Your task to perform on an android device: Go to display settings Image 0: 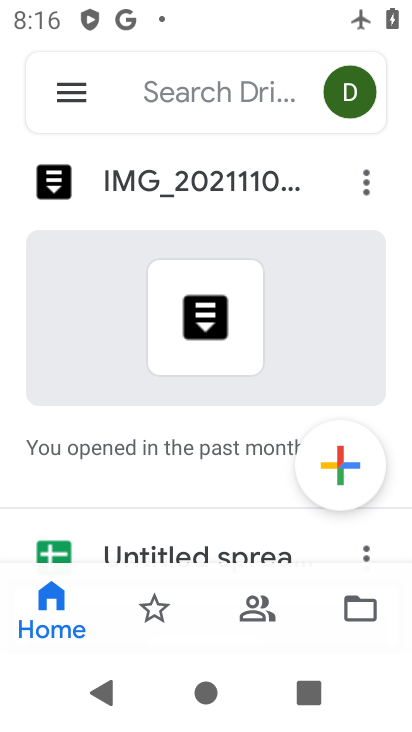
Step 0: press home button
Your task to perform on an android device: Go to display settings Image 1: 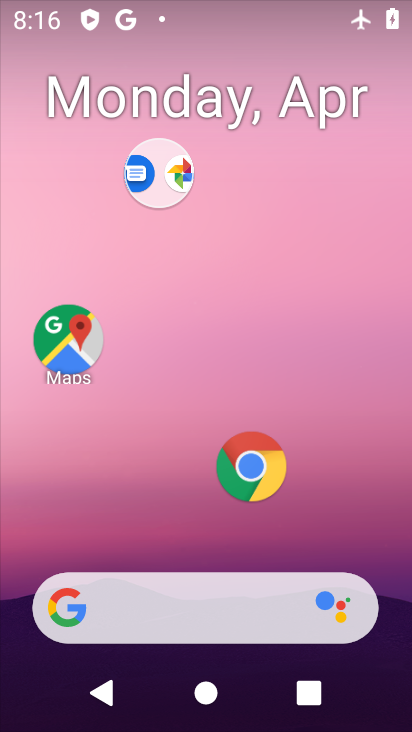
Step 1: drag from (190, 541) to (243, 267)
Your task to perform on an android device: Go to display settings Image 2: 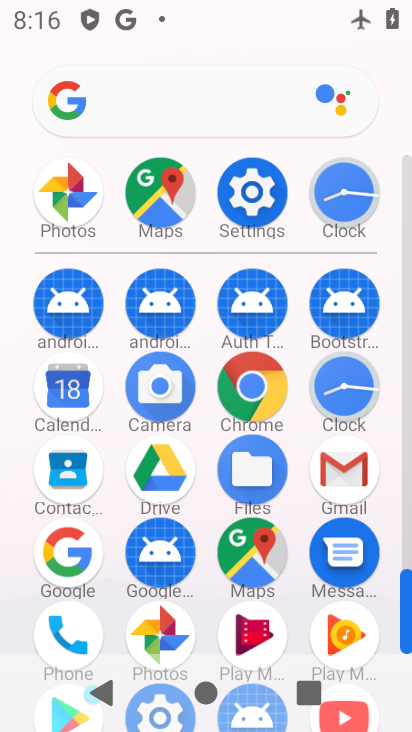
Step 2: drag from (213, 573) to (257, 275)
Your task to perform on an android device: Go to display settings Image 3: 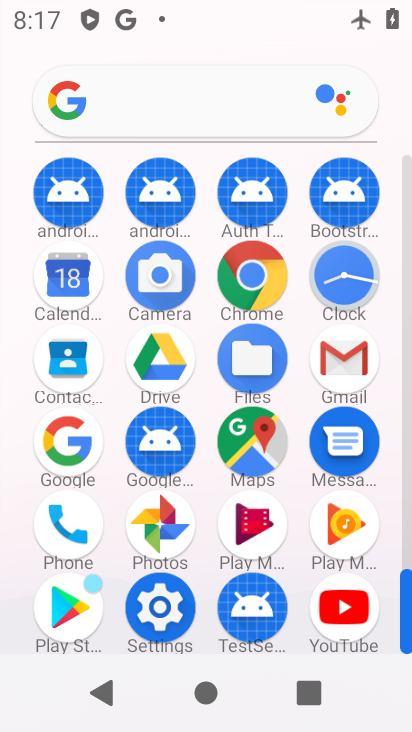
Step 3: click (158, 616)
Your task to perform on an android device: Go to display settings Image 4: 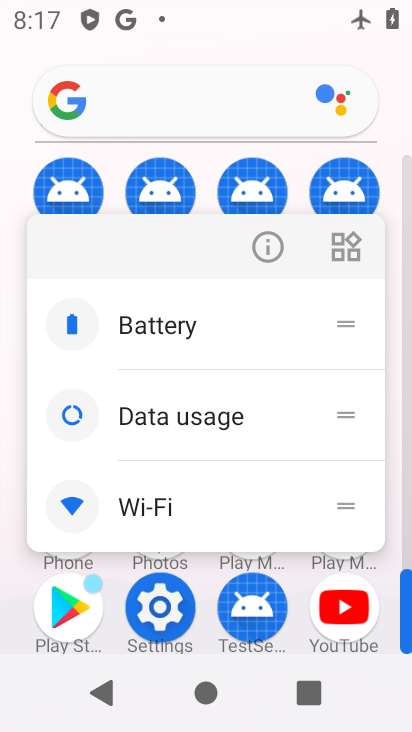
Step 4: click (268, 260)
Your task to perform on an android device: Go to display settings Image 5: 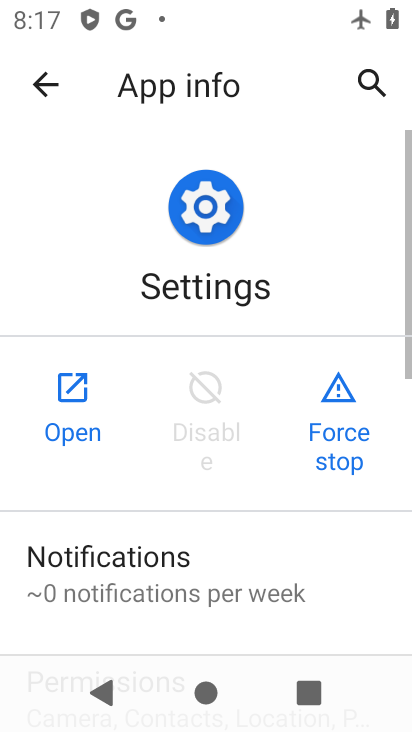
Step 5: click (72, 400)
Your task to perform on an android device: Go to display settings Image 6: 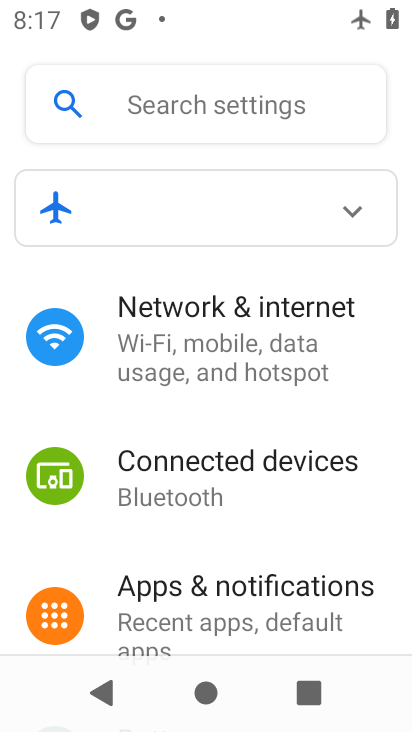
Step 6: drag from (205, 571) to (289, 162)
Your task to perform on an android device: Go to display settings Image 7: 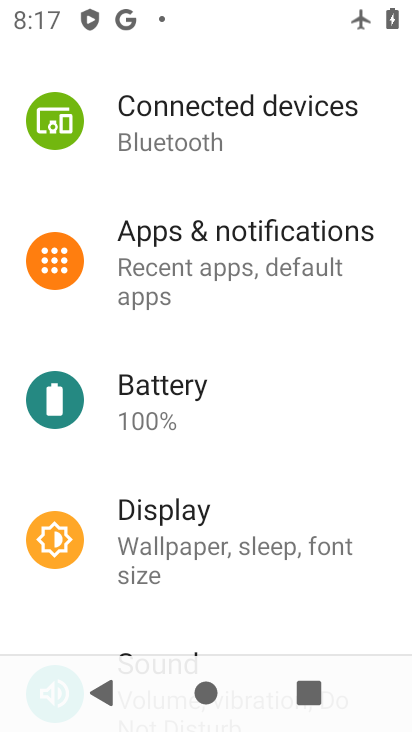
Step 7: click (189, 529)
Your task to perform on an android device: Go to display settings Image 8: 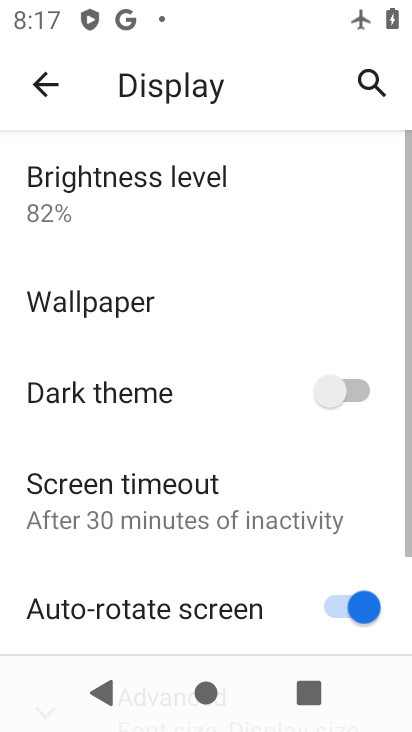
Step 8: drag from (200, 510) to (205, 229)
Your task to perform on an android device: Go to display settings Image 9: 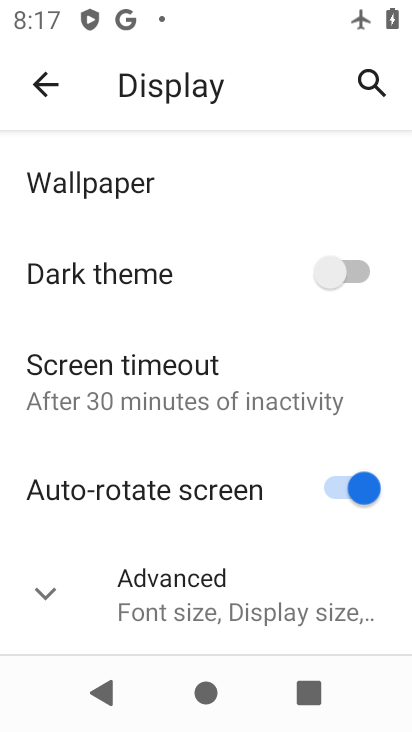
Step 9: click (205, 586)
Your task to perform on an android device: Go to display settings Image 10: 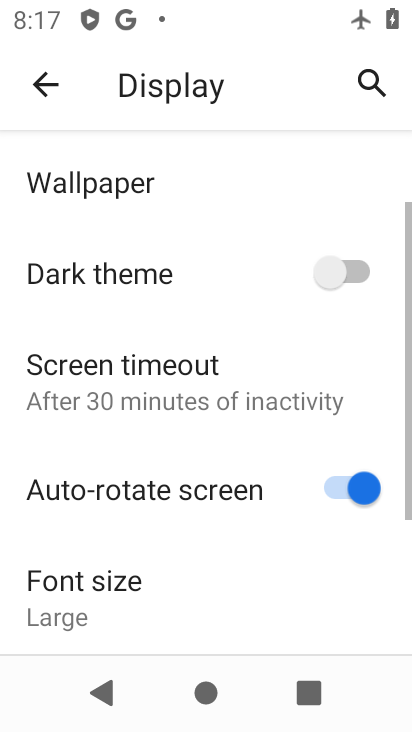
Step 10: task complete